Your task to perform on an android device: What is the recent news? Image 0: 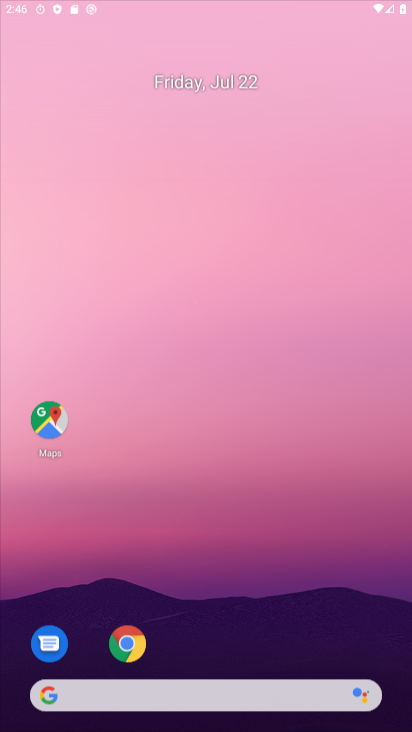
Step 0: press home button
Your task to perform on an android device: What is the recent news? Image 1: 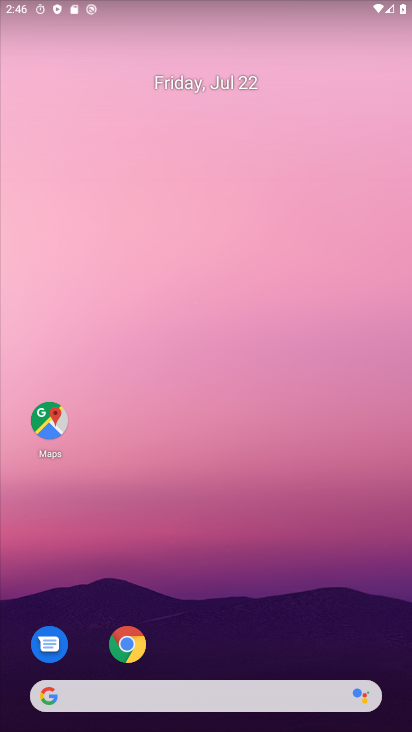
Step 1: click (42, 689)
Your task to perform on an android device: What is the recent news? Image 2: 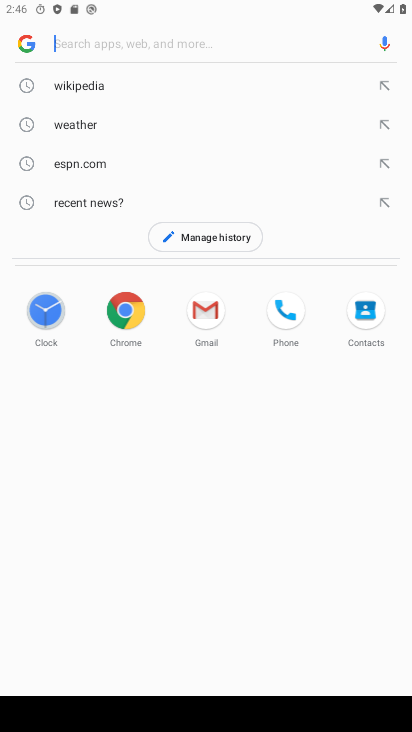
Step 2: click (94, 207)
Your task to perform on an android device: What is the recent news? Image 3: 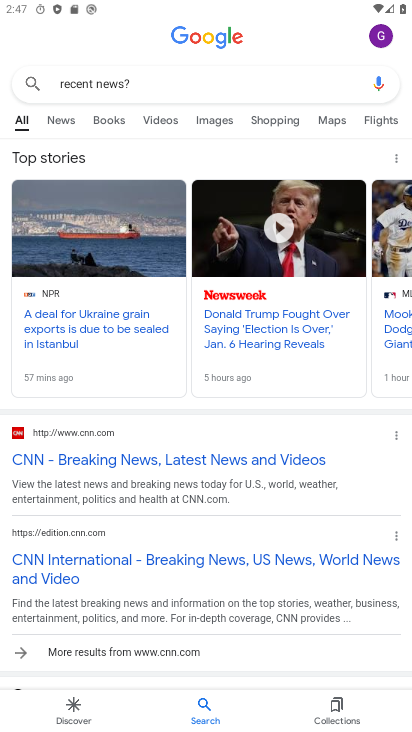
Step 3: task complete